Your task to perform on an android device: Show me productivity apps on the Play Store Image 0: 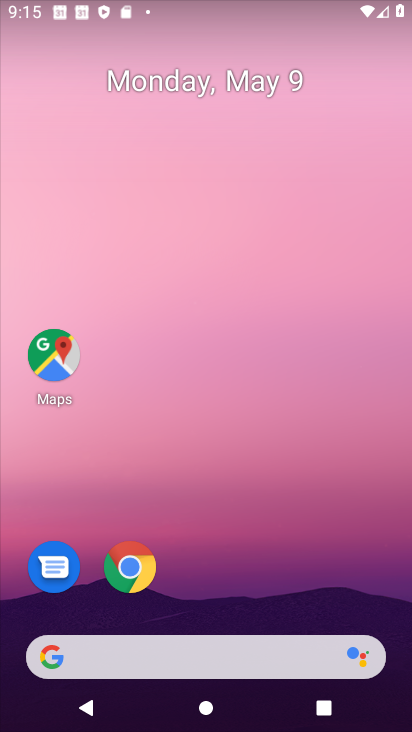
Step 0: drag from (216, 485) to (276, 106)
Your task to perform on an android device: Show me productivity apps on the Play Store Image 1: 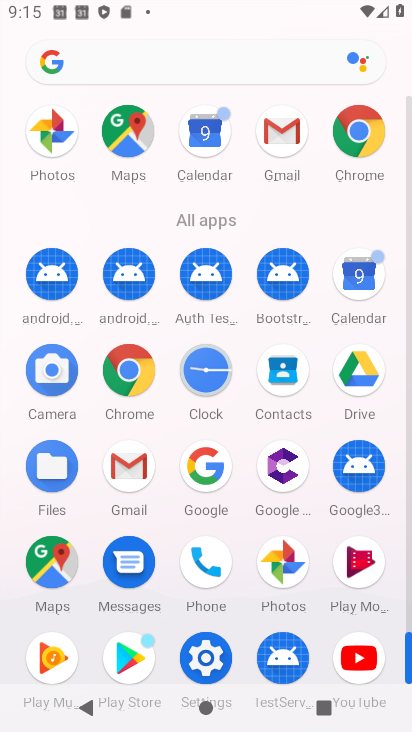
Step 1: drag from (161, 660) to (159, 242)
Your task to perform on an android device: Show me productivity apps on the Play Store Image 2: 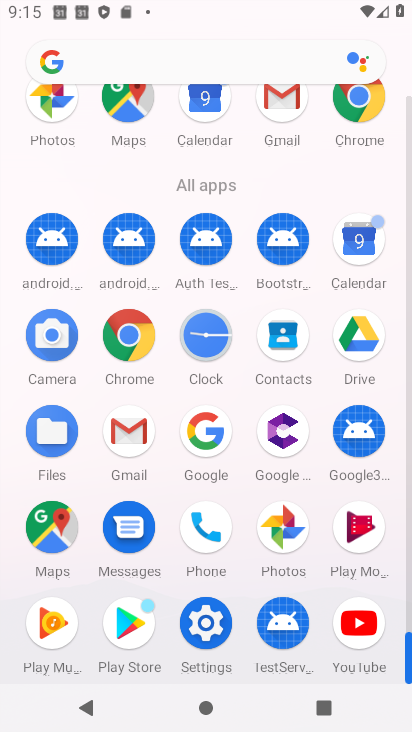
Step 2: click (119, 633)
Your task to perform on an android device: Show me productivity apps on the Play Store Image 3: 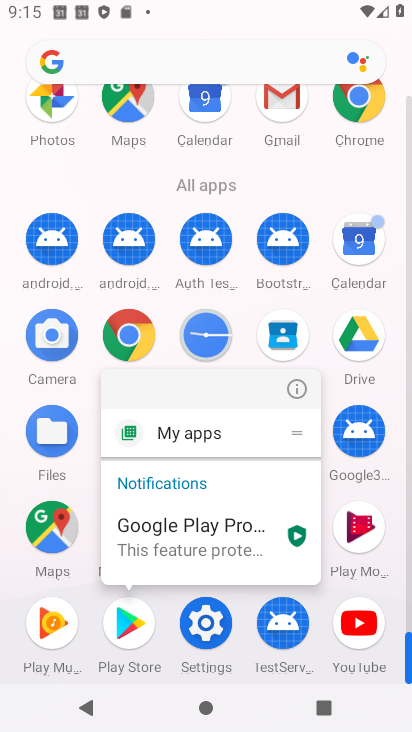
Step 3: click (282, 388)
Your task to perform on an android device: Show me productivity apps on the Play Store Image 4: 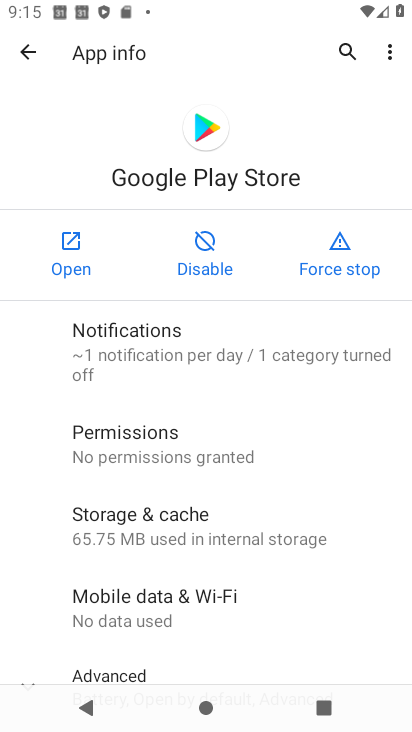
Step 4: click (64, 261)
Your task to perform on an android device: Show me productivity apps on the Play Store Image 5: 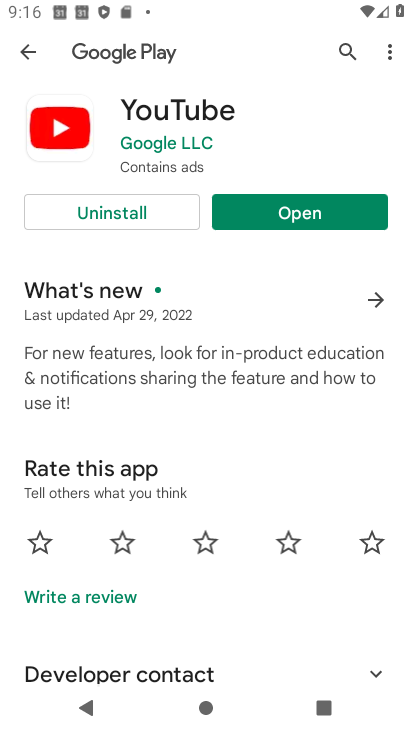
Step 5: click (30, 56)
Your task to perform on an android device: Show me productivity apps on the Play Store Image 6: 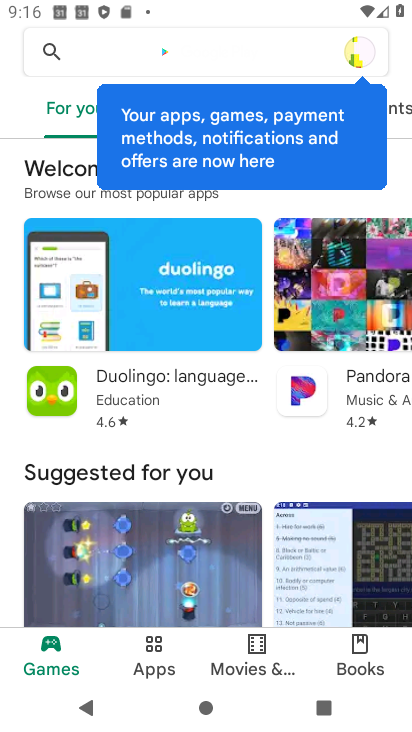
Step 6: drag from (278, 606) to (295, 226)
Your task to perform on an android device: Show me productivity apps on the Play Store Image 7: 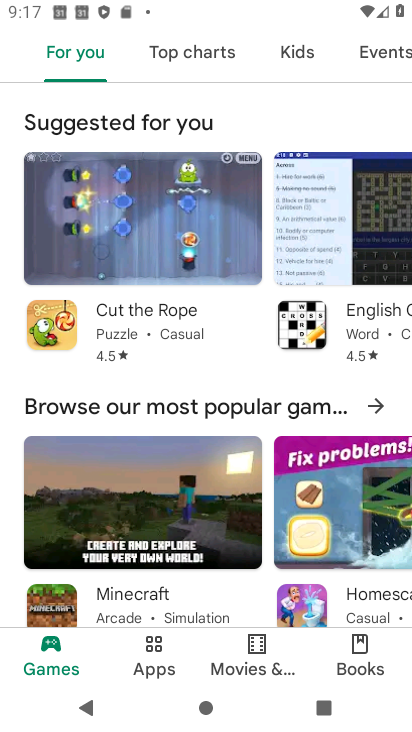
Step 7: drag from (218, 257) to (364, 727)
Your task to perform on an android device: Show me productivity apps on the Play Store Image 8: 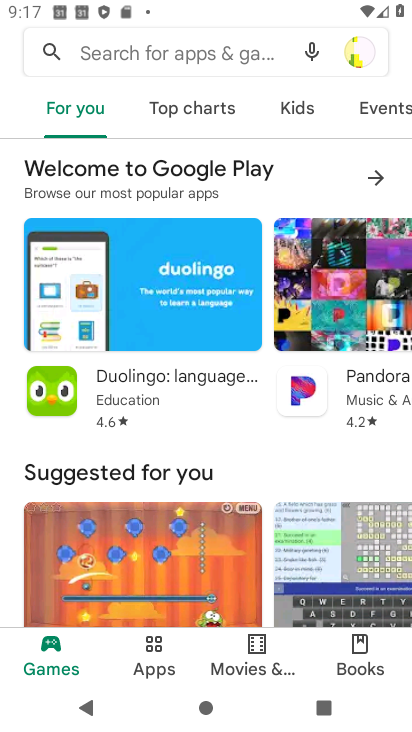
Step 8: click (374, 47)
Your task to perform on an android device: Show me productivity apps on the Play Store Image 9: 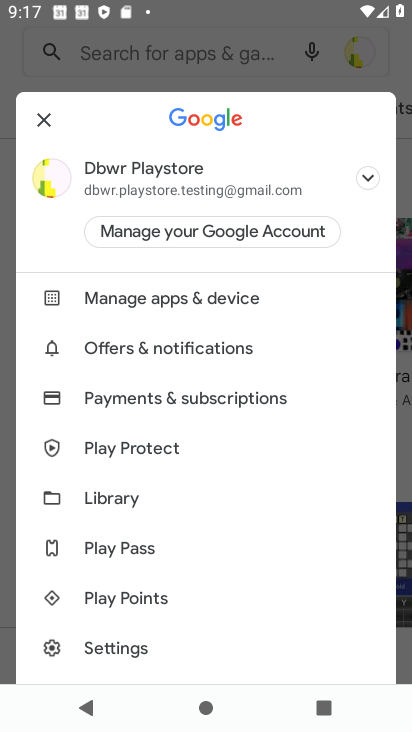
Step 9: drag from (215, 672) to (210, 323)
Your task to perform on an android device: Show me productivity apps on the Play Store Image 10: 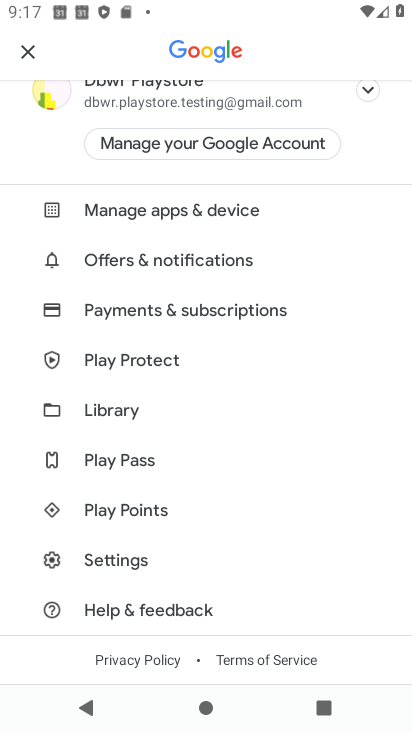
Step 10: click (203, 217)
Your task to perform on an android device: Show me productivity apps on the Play Store Image 11: 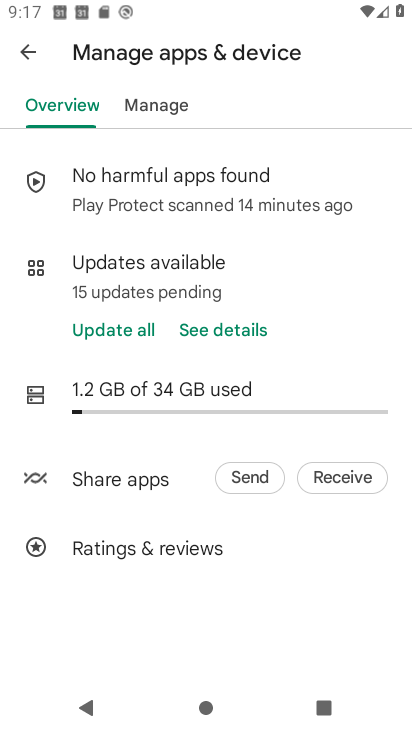
Step 11: click (106, 270)
Your task to perform on an android device: Show me productivity apps on the Play Store Image 12: 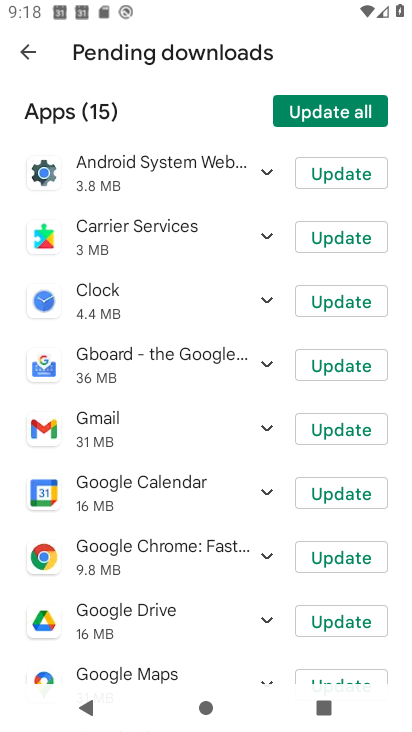
Step 12: task complete